Your task to perform on an android device: open chrome privacy settings Image 0: 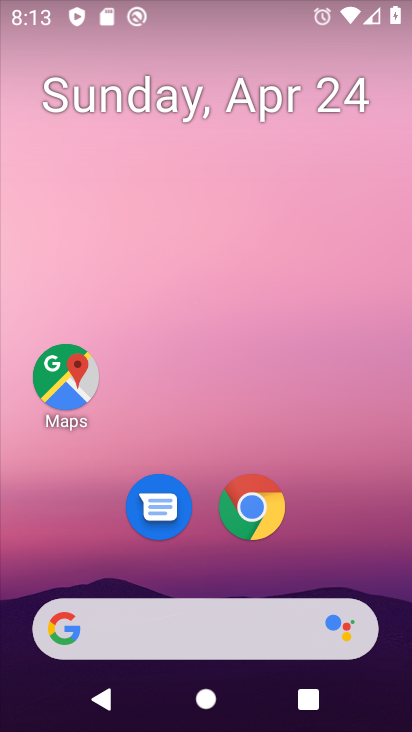
Step 0: click (231, 522)
Your task to perform on an android device: open chrome privacy settings Image 1: 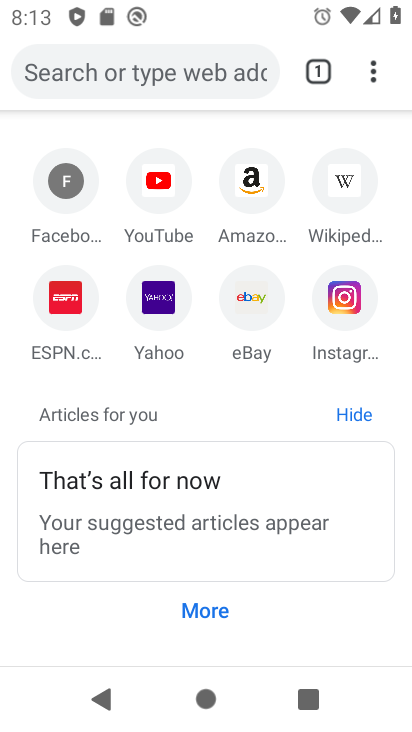
Step 1: drag from (390, 78) to (251, 506)
Your task to perform on an android device: open chrome privacy settings Image 2: 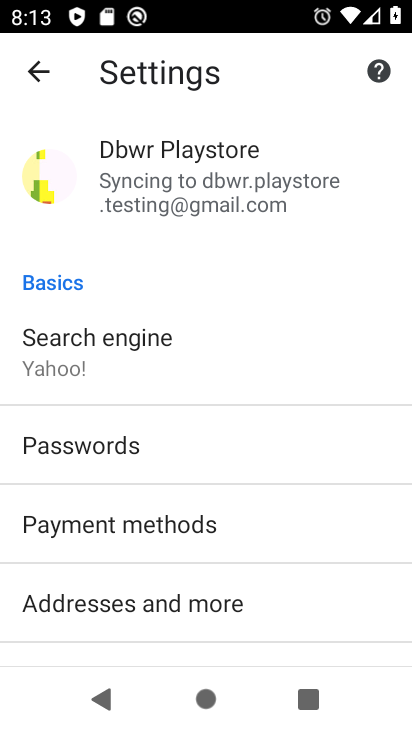
Step 2: drag from (263, 654) to (273, 302)
Your task to perform on an android device: open chrome privacy settings Image 3: 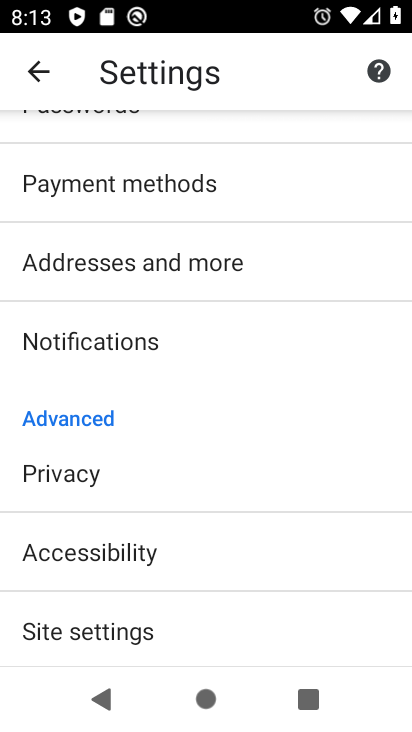
Step 3: click (129, 472)
Your task to perform on an android device: open chrome privacy settings Image 4: 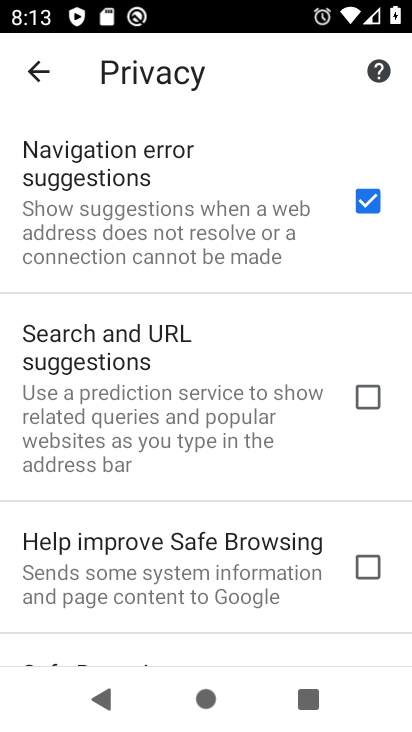
Step 4: task complete